Your task to perform on an android device: Open Chrome and go to the settings page Image 0: 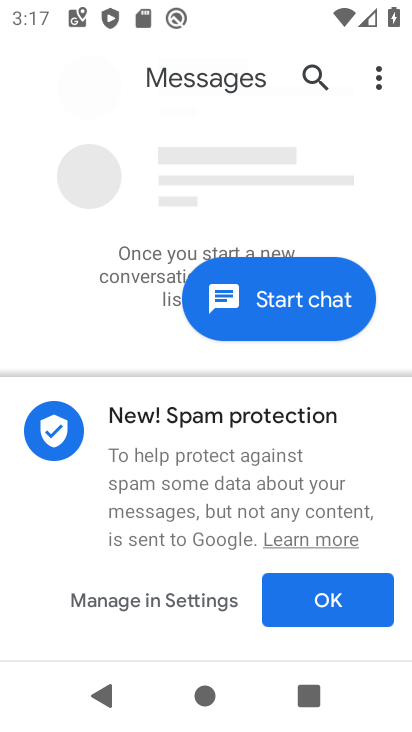
Step 0: press back button
Your task to perform on an android device: Open Chrome and go to the settings page Image 1: 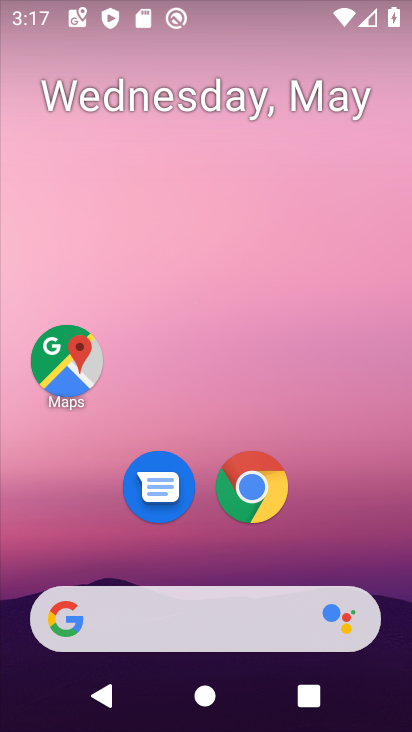
Step 1: drag from (338, 495) to (236, 3)
Your task to perform on an android device: Open Chrome and go to the settings page Image 2: 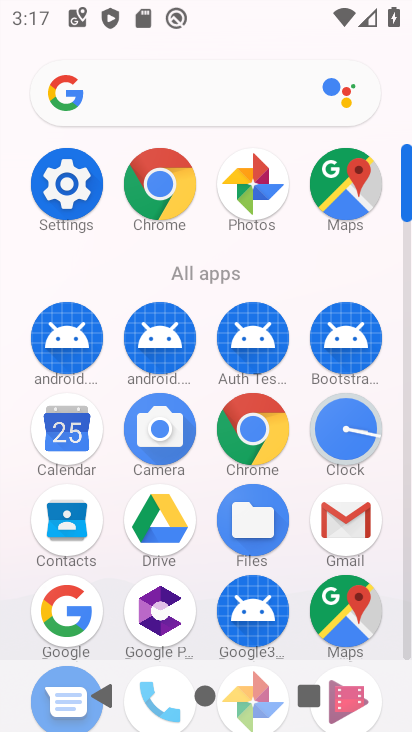
Step 2: click (252, 425)
Your task to perform on an android device: Open Chrome and go to the settings page Image 3: 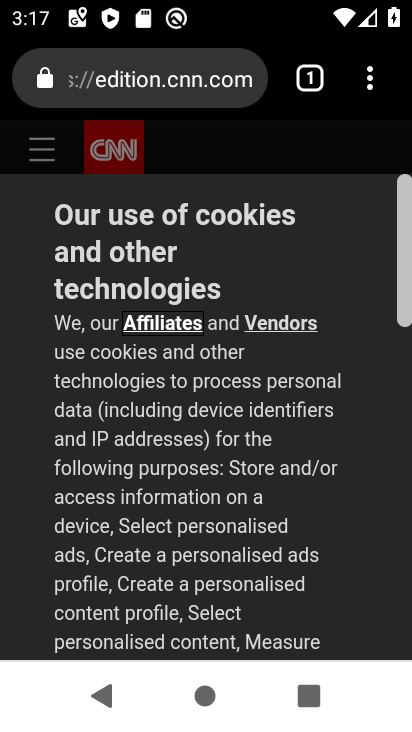
Step 3: task complete